Your task to perform on an android device: turn on priority inbox in the gmail app Image 0: 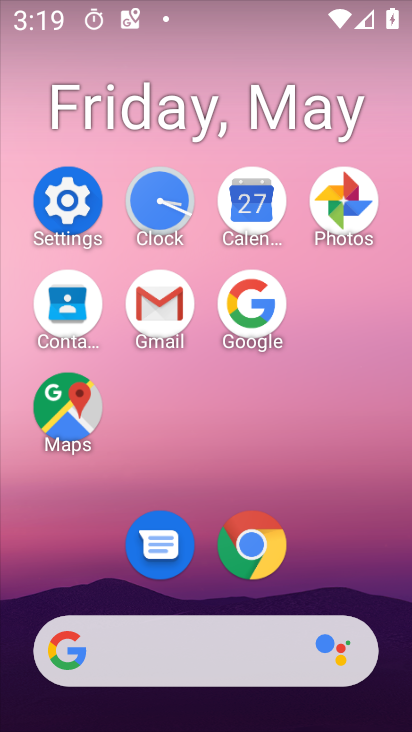
Step 0: click (167, 305)
Your task to perform on an android device: turn on priority inbox in the gmail app Image 1: 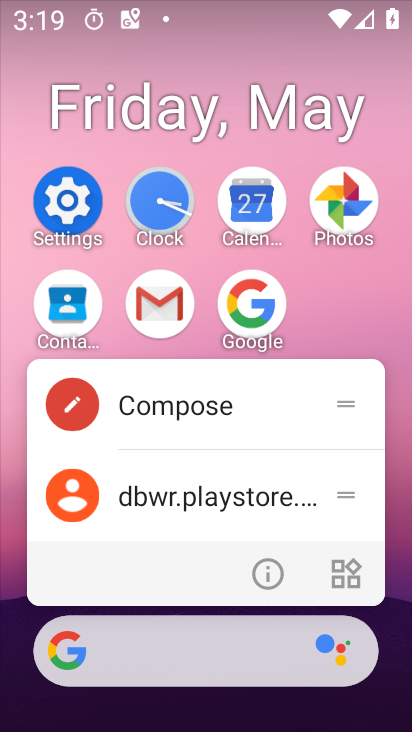
Step 1: click (167, 302)
Your task to perform on an android device: turn on priority inbox in the gmail app Image 2: 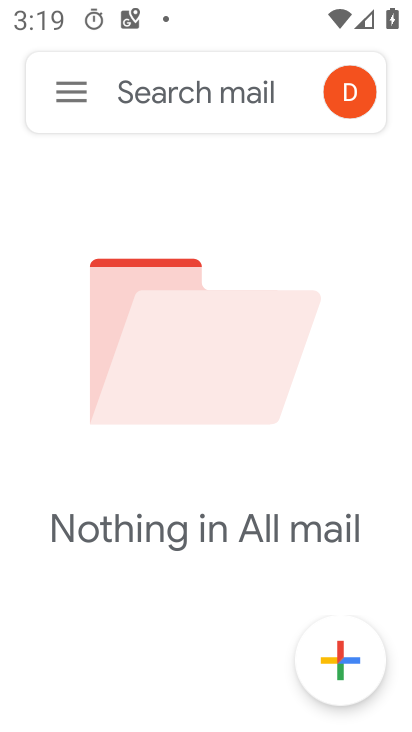
Step 2: click (66, 102)
Your task to perform on an android device: turn on priority inbox in the gmail app Image 3: 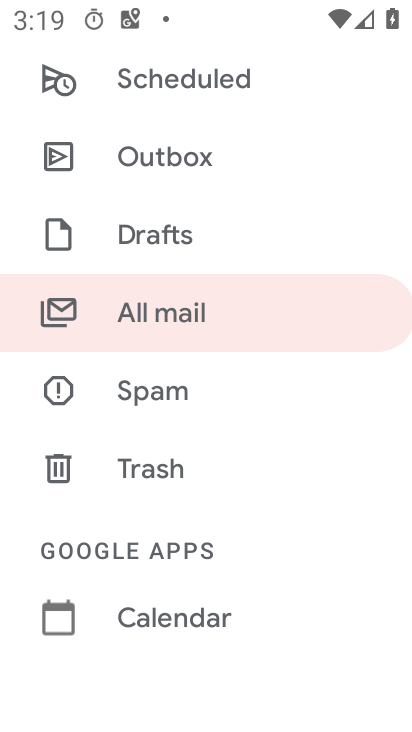
Step 3: drag from (247, 530) to (256, 187)
Your task to perform on an android device: turn on priority inbox in the gmail app Image 4: 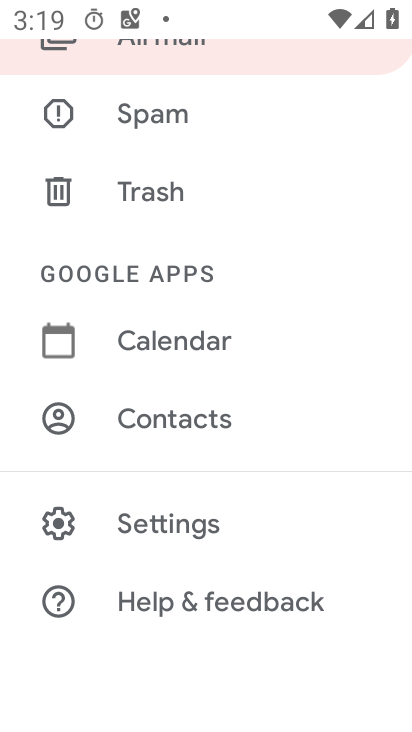
Step 4: click (264, 528)
Your task to perform on an android device: turn on priority inbox in the gmail app Image 5: 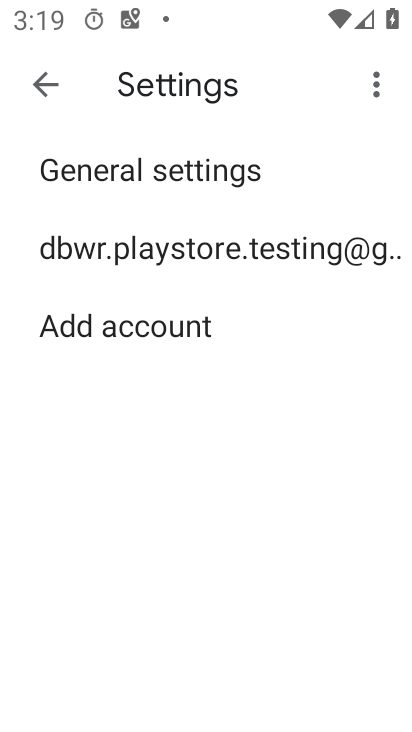
Step 5: click (197, 246)
Your task to perform on an android device: turn on priority inbox in the gmail app Image 6: 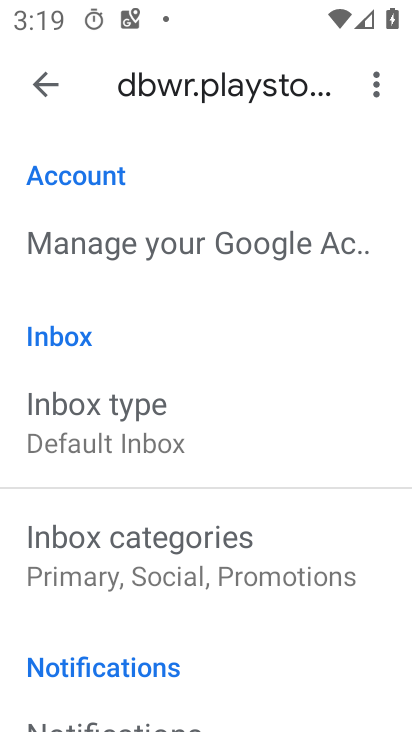
Step 6: click (186, 395)
Your task to perform on an android device: turn on priority inbox in the gmail app Image 7: 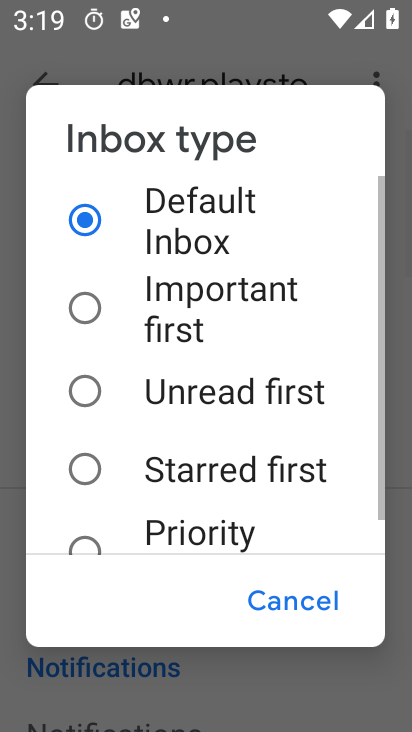
Step 7: click (187, 530)
Your task to perform on an android device: turn on priority inbox in the gmail app Image 8: 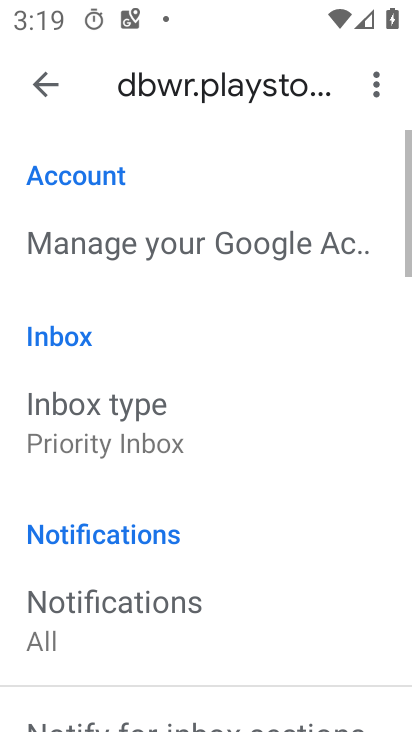
Step 8: task complete